Your task to perform on an android device: check android version Image 0: 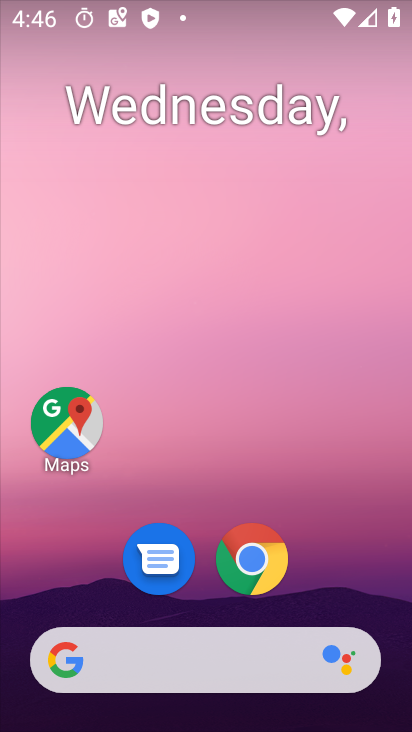
Step 0: drag from (335, 529) to (273, 59)
Your task to perform on an android device: check android version Image 1: 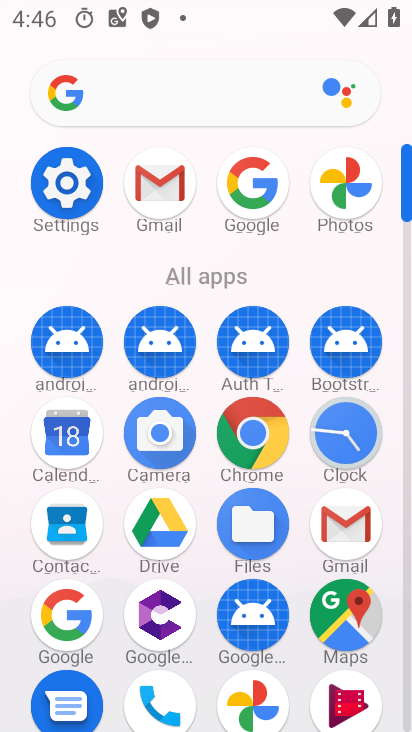
Step 1: click (67, 187)
Your task to perform on an android device: check android version Image 2: 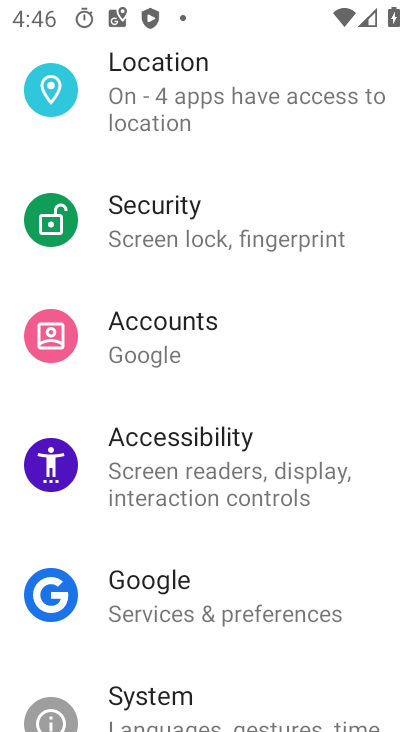
Step 2: drag from (249, 605) to (277, 89)
Your task to perform on an android device: check android version Image 3: 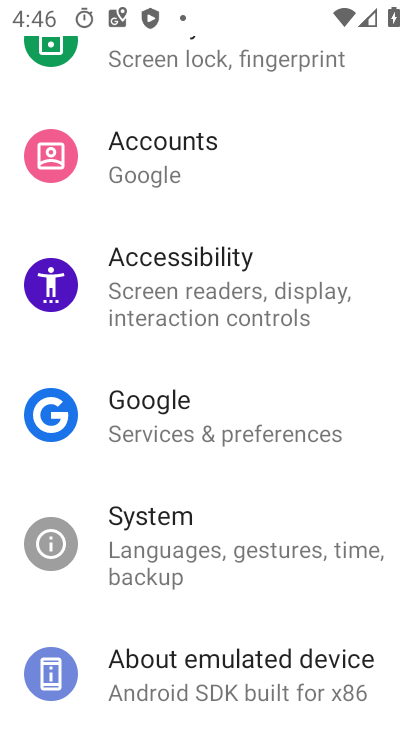
Step 3: drag from (240, 623) to (254, 258)
Your task to perform on an android device: check android version Image 4: 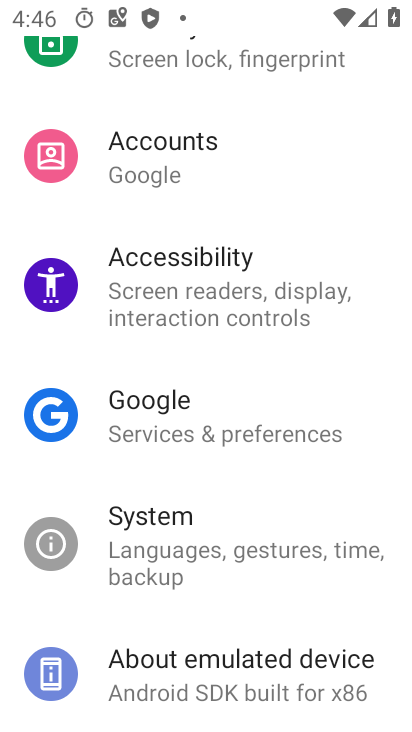
Step 4: click (260, 668)
Your task to perform on an android device: check android version Image 5: 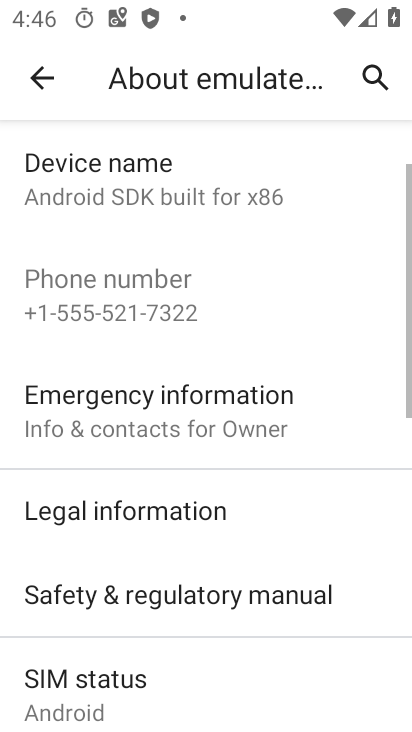
Step 5: drag from (229, 649) to (211, 228)
Your task to perform on an android device: check android version Image 6: 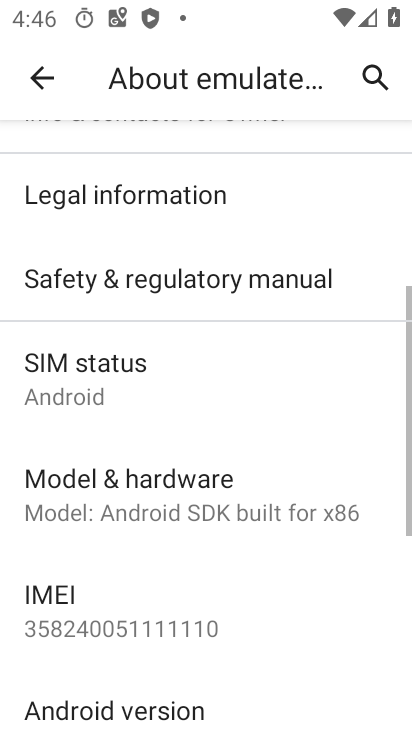
Step 6: drag from (205, 641) to (213, 328)
Your task to perform on an android device: check android version Image 7: 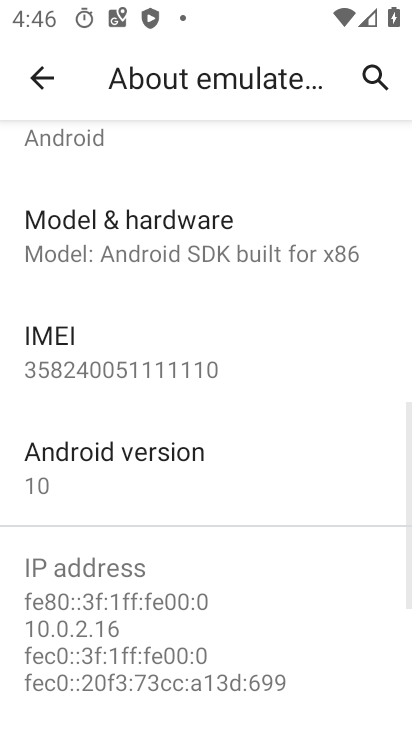
Step 7: click (177, 491)
Your task to perform on an android device: check android version Image 8: 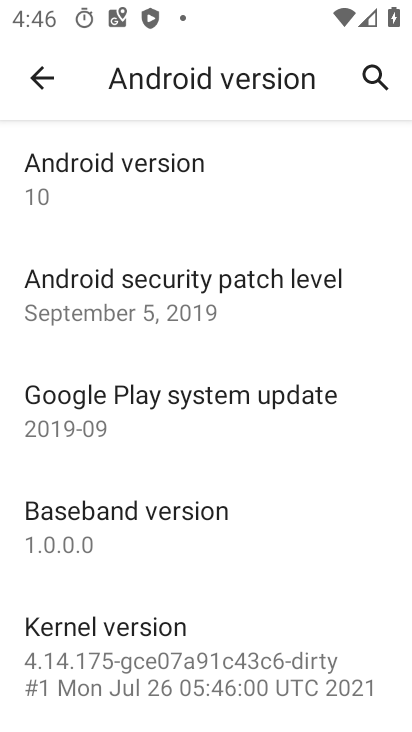
Step 8: task complete